Your task to perform on an android device: Open Maps and search for coffee Image 0: 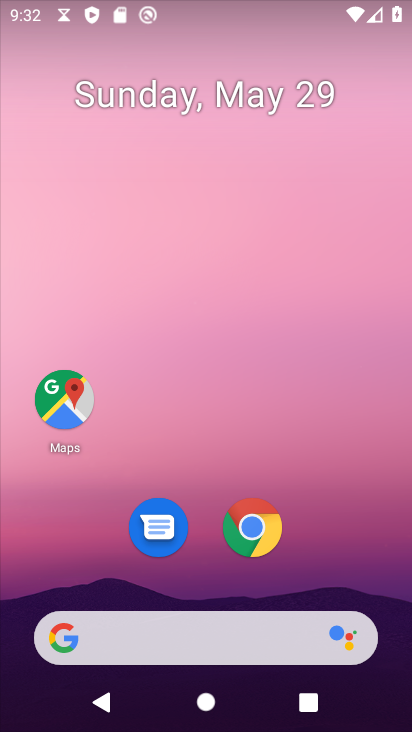
Step 0: click (63, 405)
Your task to perform on an android device: Open Maps and search for coffee Image 1: 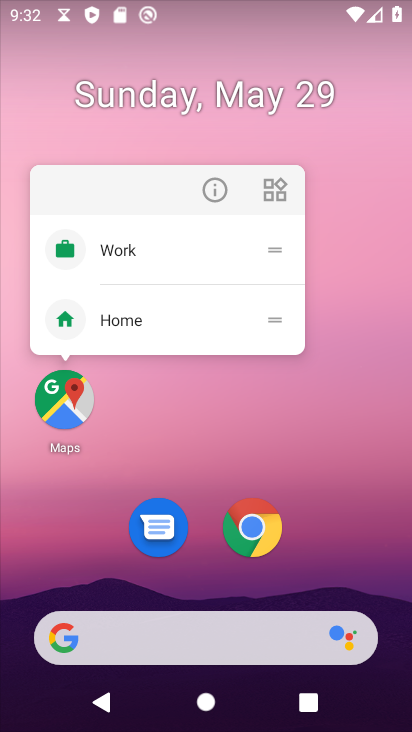
Step 1: click (62, 408)
Your task to perform on an android device: Open Maps and search for coffee Image 2: 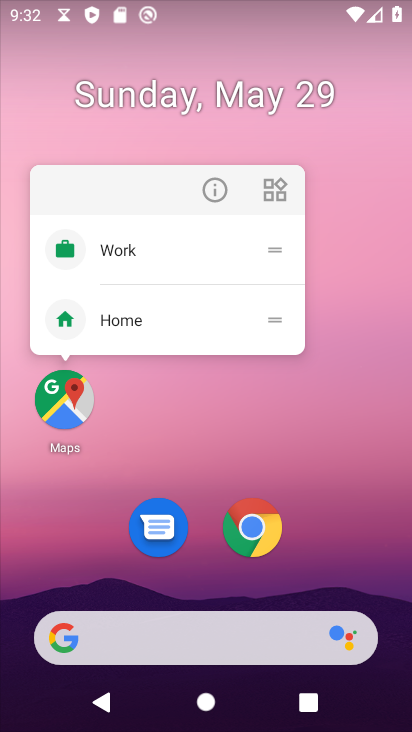
Step 2: click (64, 423)
Your task to perform on an android device: Open Maps and search for coffee Image 3: 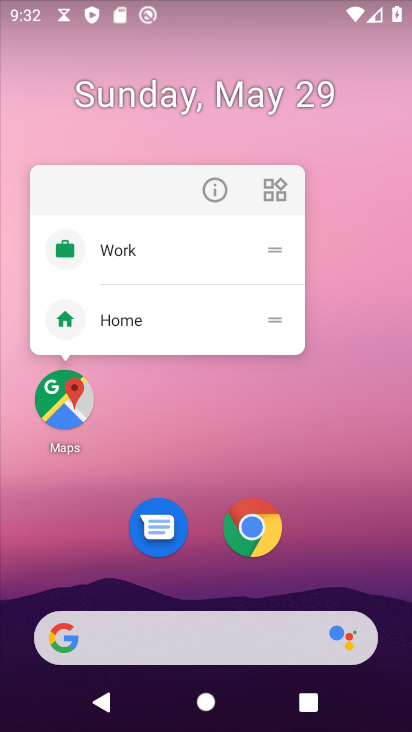
Step 3: click (63, 405)
Your task to perform on an android device: Open Maps and search for coffee Image 4: 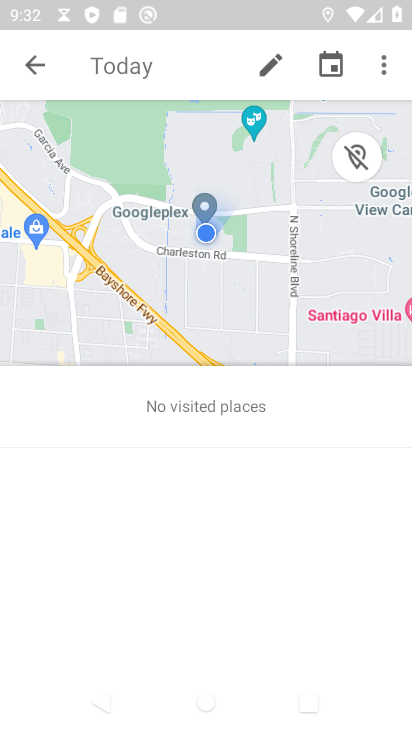
Step 4: click (30, 63)
Your task to perform on an android device: Open Maps and search for coffee Image 5: 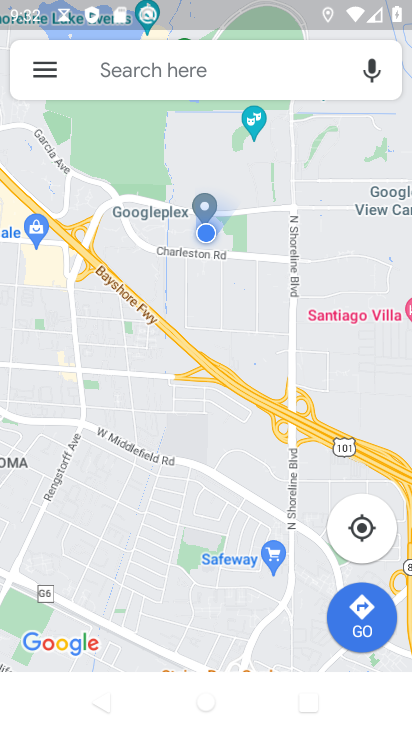
Step 5: click (142, 61)
Your task to perform on an android device: Open Maps and search for coffee Image 6: 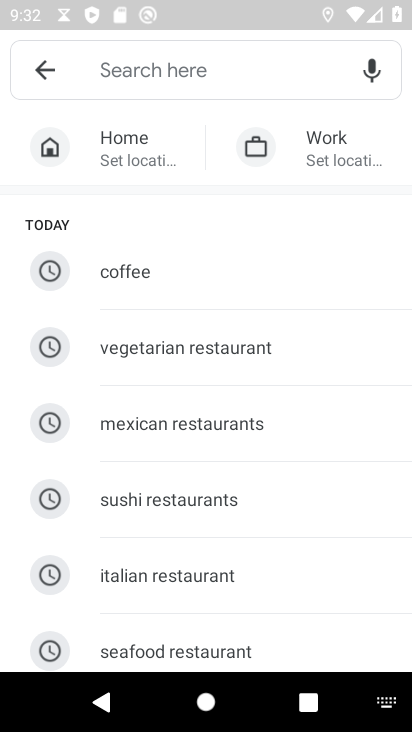
Step 6: click (136, 274)
Your task to perform on an android device: Open Maps and search for coffee Image 7: 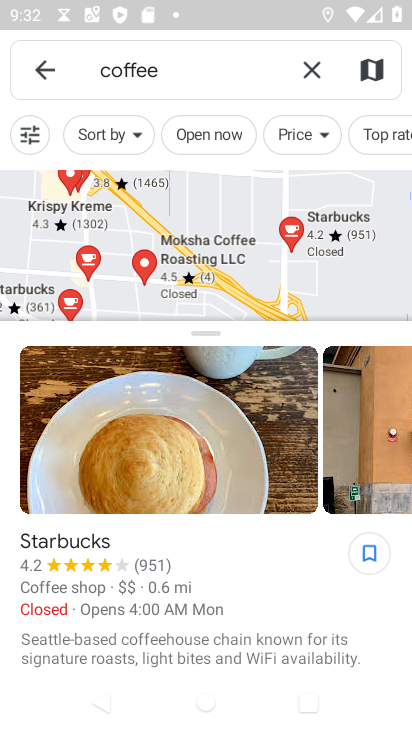
Step 7: task complete